Your task to perform on an android device: turn off airplane mode Image 0: 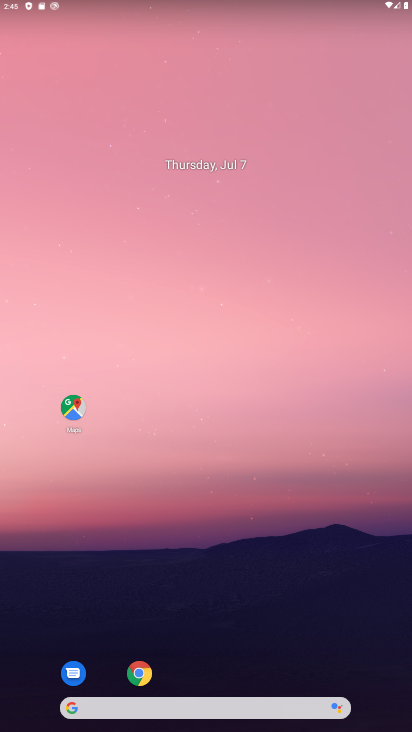
Step 0: drag from (195, 637) to (225, 0)
Your task to perform on an android device: turn off airplane mode Image 1: 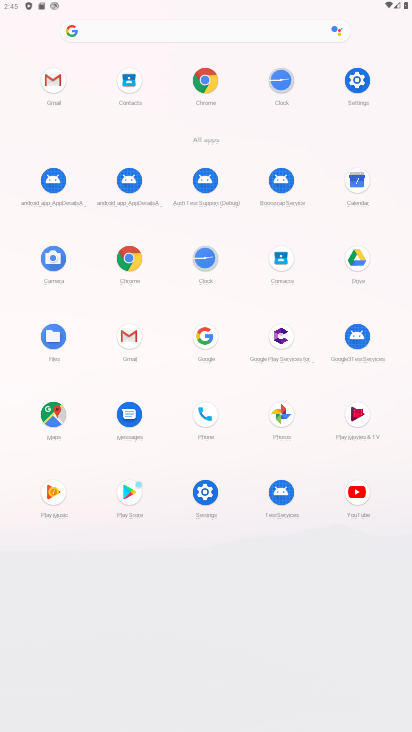
Step 1: click (205, 505)
Your task to perform on an android device: turn off airplane mode Image 2: 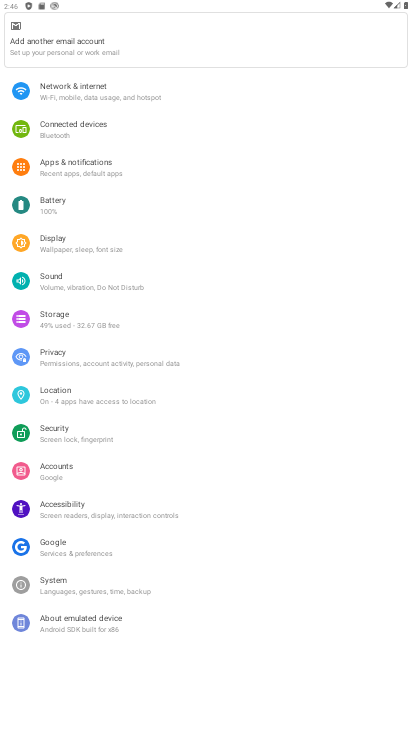
Step 2: click (116, 93)
Your task to perform on an android device: turn off airplane mode Image 3: 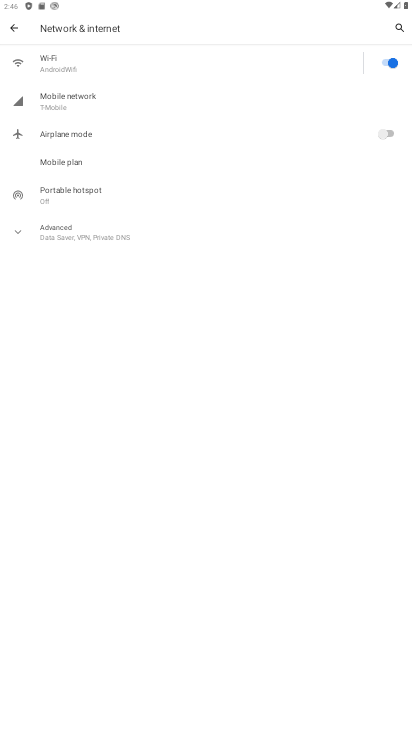
Step 3: task complete